Your task to perform on an android device: turn notification dots on Image 0: 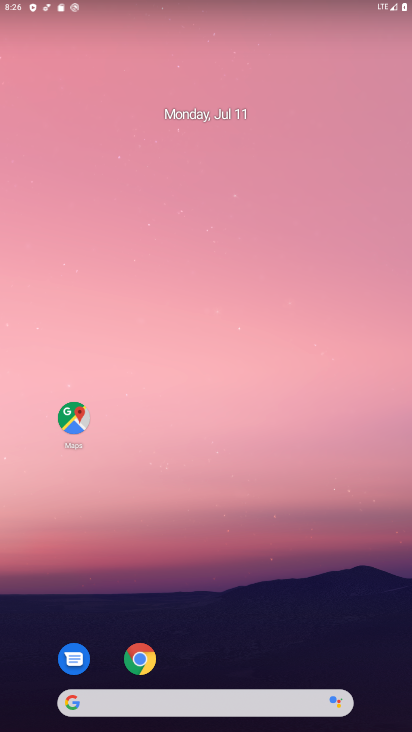
Step 0: drag from (189, 409) to (362, 567)
Your task to perform on an android device: turn notification dots on Image 1: 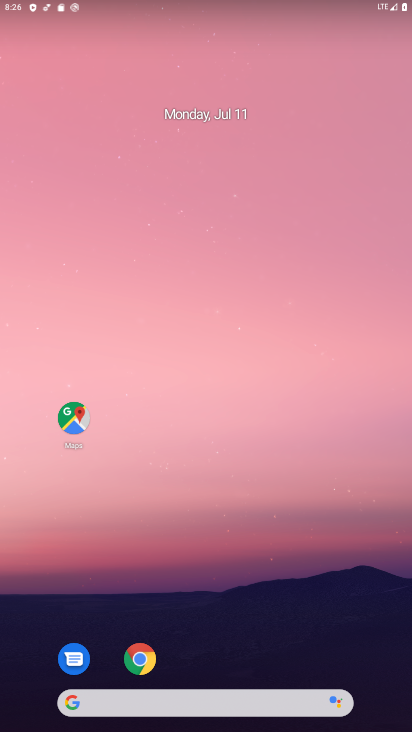
Step 1: drag from (233, 656) to (254, 22)
Your task to perform on an android device: turn notification dots on Image 2: 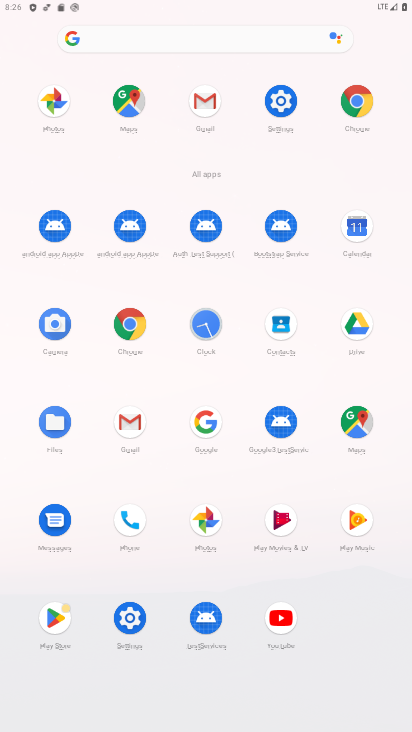
Step 2: click (131, 625)
Your task to perform on an android device: turn notification dots on Image 3: 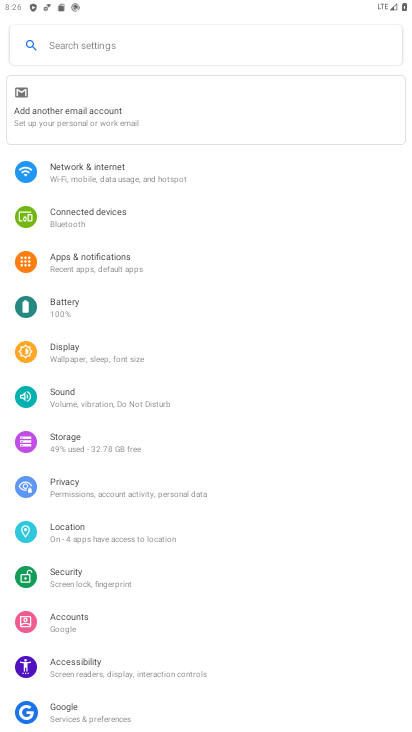
Step 3: click (122, 268)
Your task to perform on an android device: turn notification dots on Image 4: 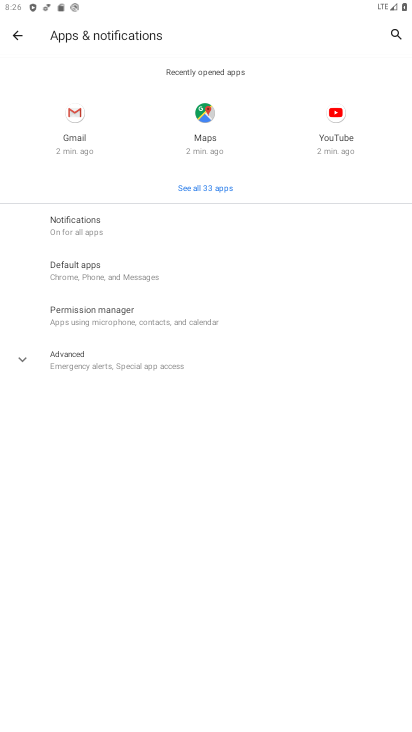
Step 4: click (105, 226)
Your task to perform on an android device: turn notification dots on Image 5: 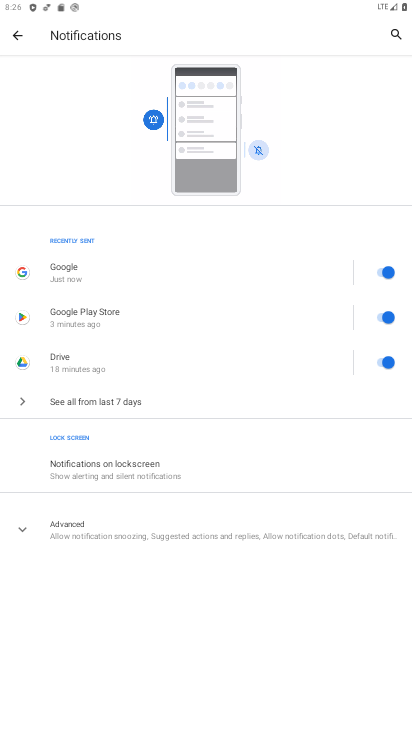
Step 5: click (139, 541)
Your task to perform on an android device: turn notification dots on Image 6: 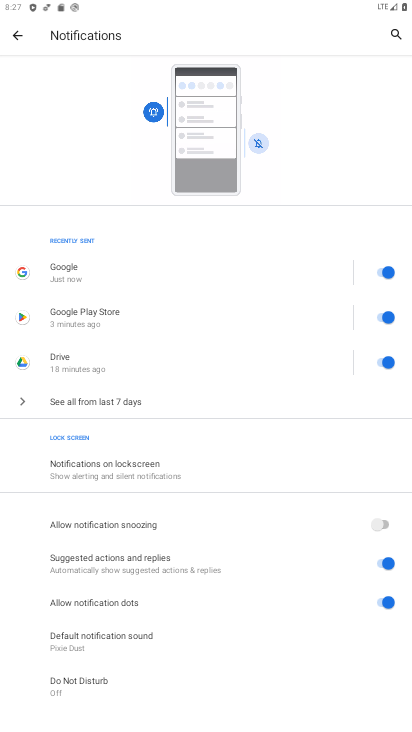
Step 6: task complete